Your task to perform on an android device: turn off airplane mode Image 0: 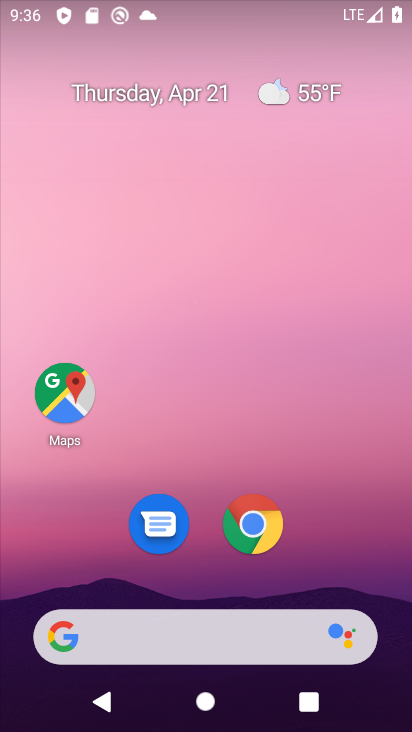
Step 0: drag from (333, 513) to (341, 93)
Your task to perform on an android device: turn off airplane mode Image 1: 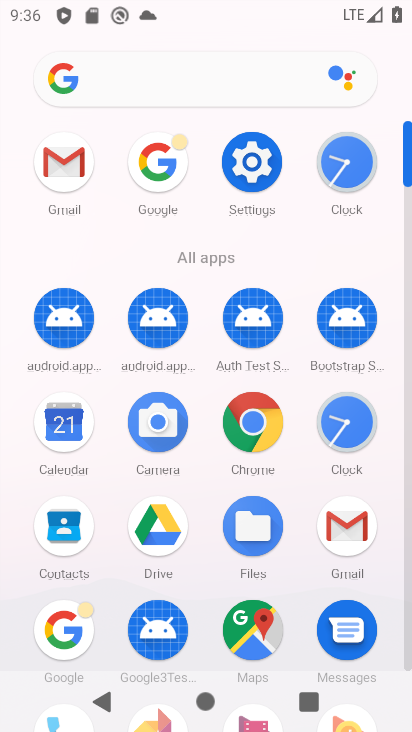
Step 1: click (249, 160)
Your task to perform on an android device: turn off airplane mode Image 2: 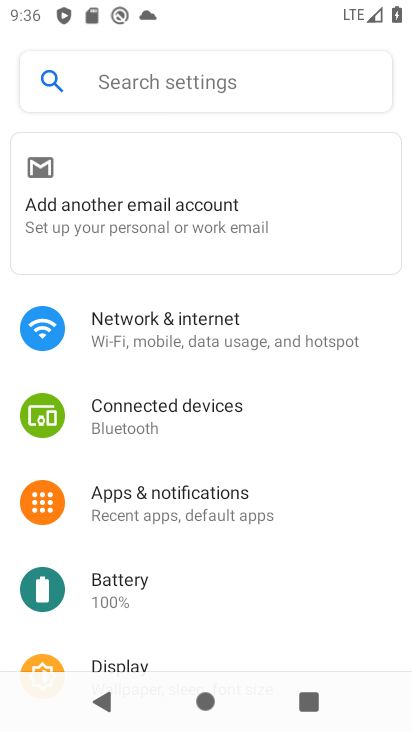
Step 2: click (233, 335)
Your task to perform on an android device: turn off airplane mode Image 3: 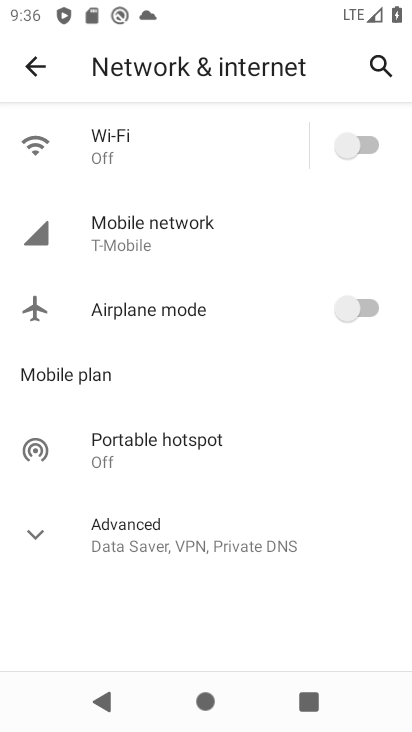
Step 3: task complete